Your task to perform on an android device: Go to settings Image 0: 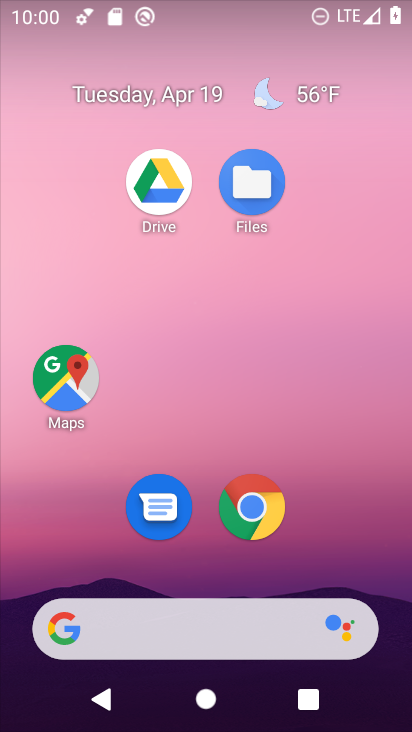
Step 0: drag from (360, 529) to (380, 82)
Your task to perform on an android device: Go to settings Image 1: 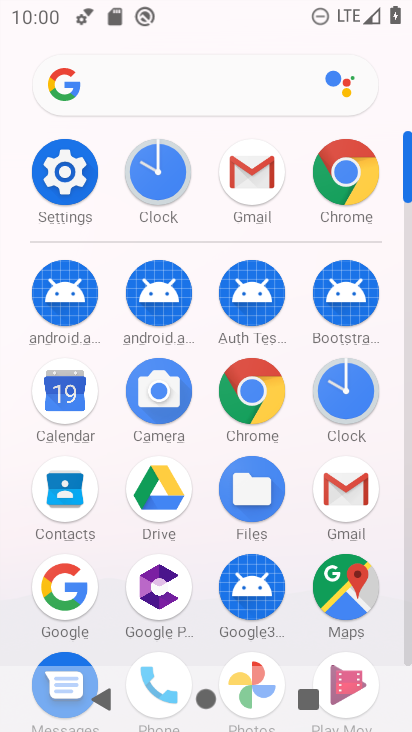
Step 1: click (75, 180)
Your task to perform on an android device: Go to settings Image 2: 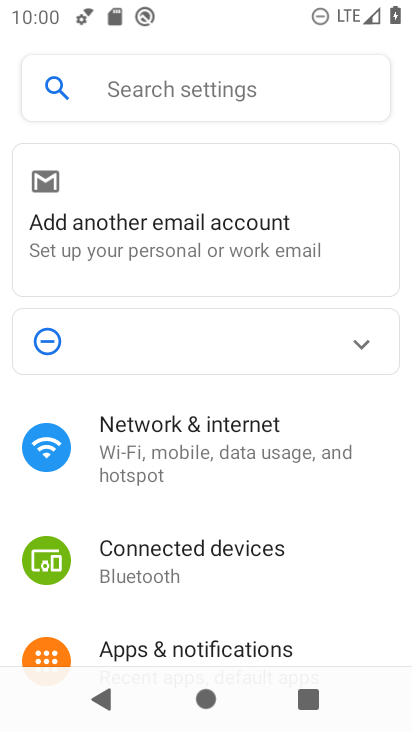
Step 2: task complete